Your task to perform on an android device: Open notification settings Image 0: 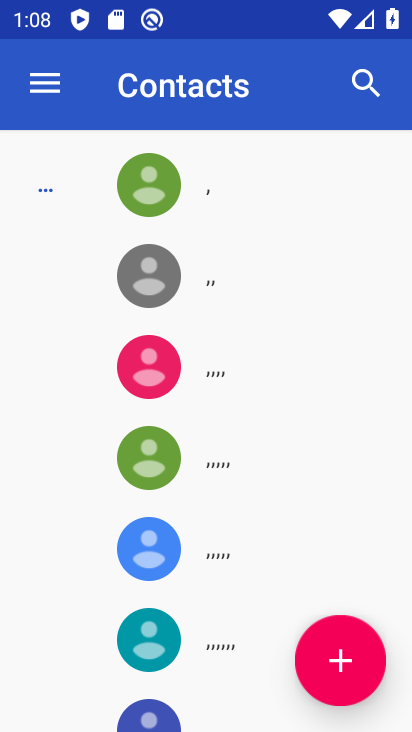
Step 0: press home button
Your task to perform on an android device: Open notification settings Image 1: 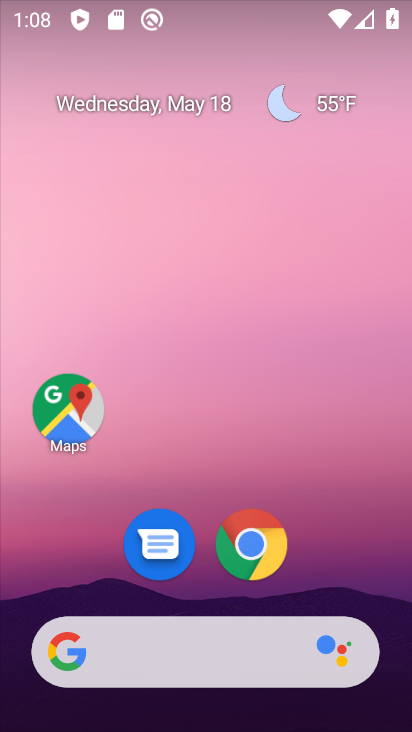
Step 1: drag from (193, 590) to (255, 151)
Your task to perform on an android device: Open notification settings Image 2: 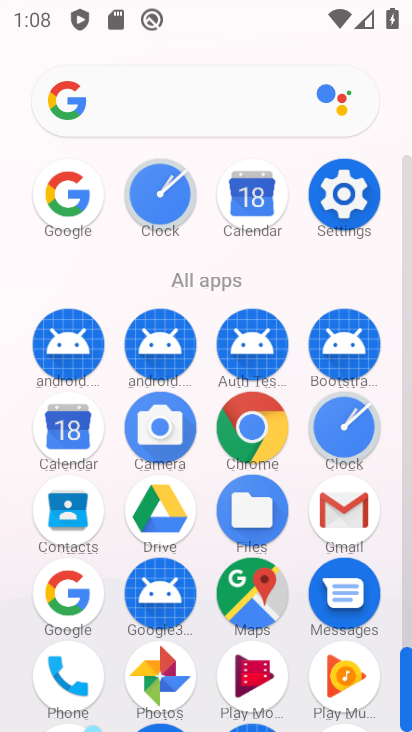
Step 2: click (340, 197)
Your task to perform on an android device: Open notification settings Image 3: 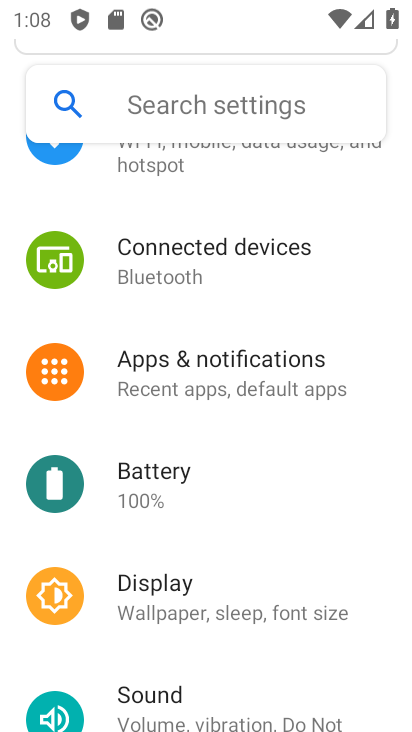
Step 3: drag from (274, 543) to (226, 199)
Your task to perform on an android device: Open notification settings Image 4: 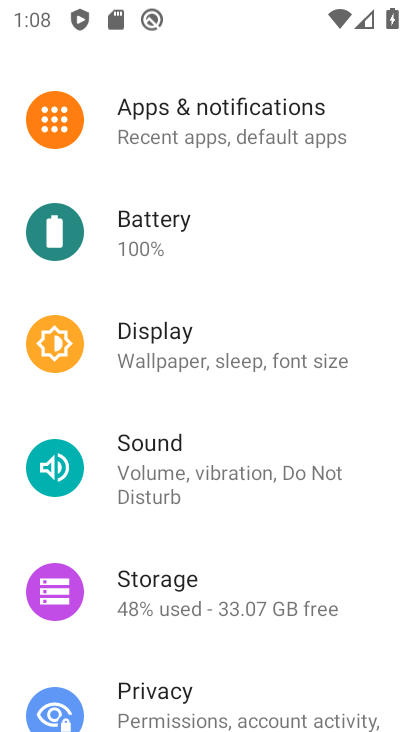
Step 4: drag from (225, 196) to (232, 342)
Your task to perform on an android device: Open notification settings Image 5: 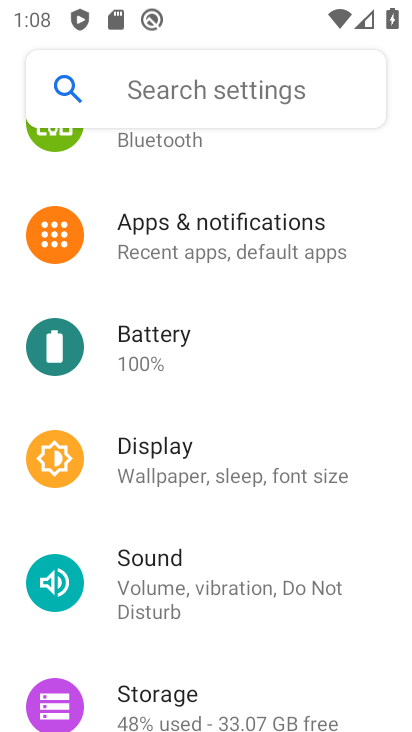
Step 5: click (247, 253)
Your task to perform on an android device: Open notification settings Image 6: 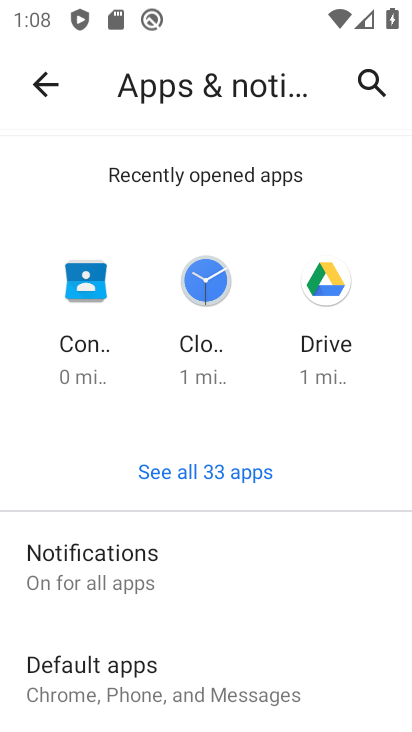
Step 6: task complete